Your task to perform on an android device: See recent photos Image 0: 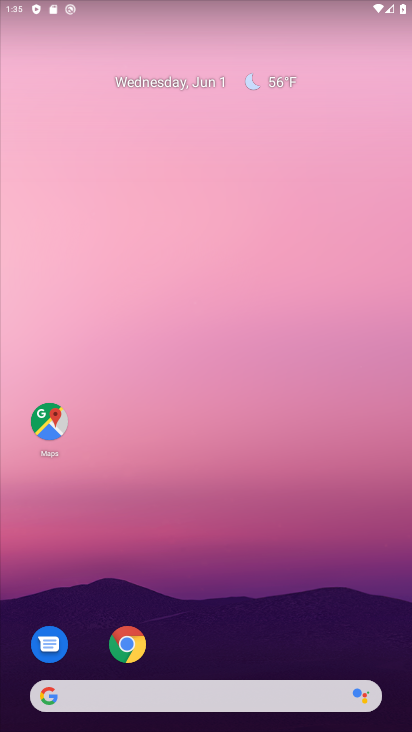
Step 0: drag from (255, 633) to (250, 357)
Your task to perform on an android device: See recent photos Image 1: 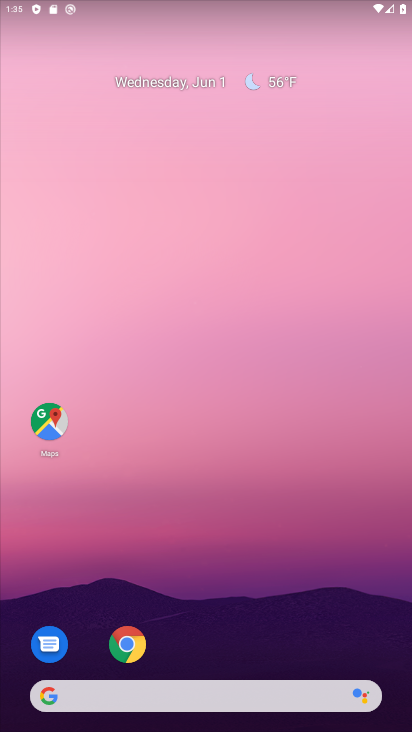
Step 1: drag from (192, 672) to (165, 291)
Your task to perform on an android device: See recent photos Image 2: 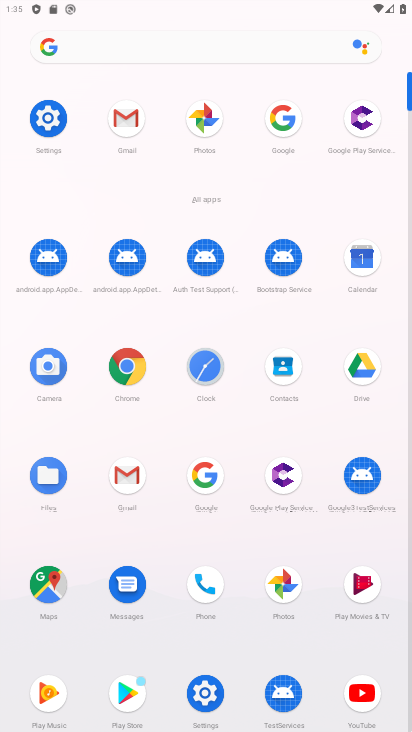
Step 2: click (199, 480)
Your task to perform on an android device: See recent photos Image 3: 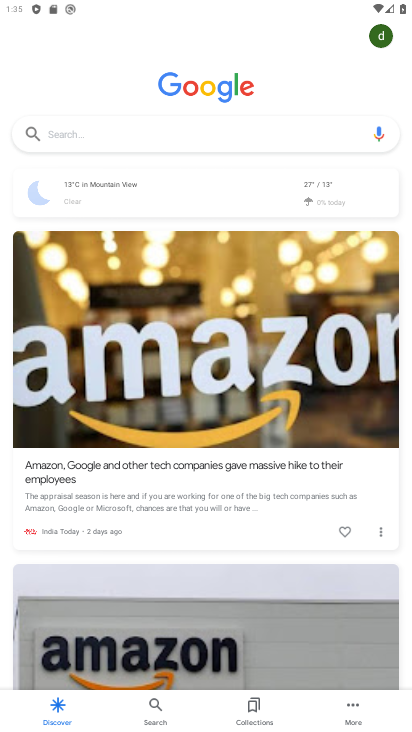
Step 3: click (129, 136)
Your task to perform on an android device: See recent photos Image 4: 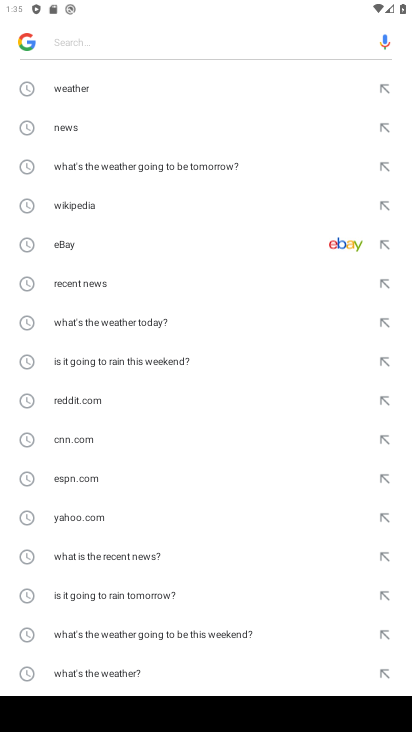
Step 4: click (79, 278)
Your task to perform on an android device: See recent photos Image 5: 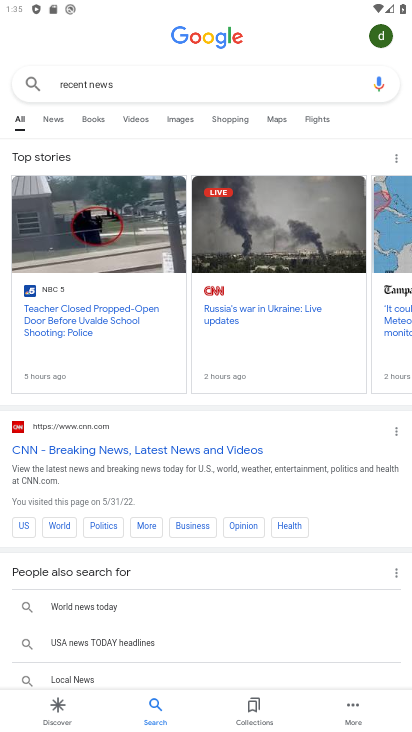
Step 5: task complete